Your task to perform on an android device: turn off airplane mode Image 0: 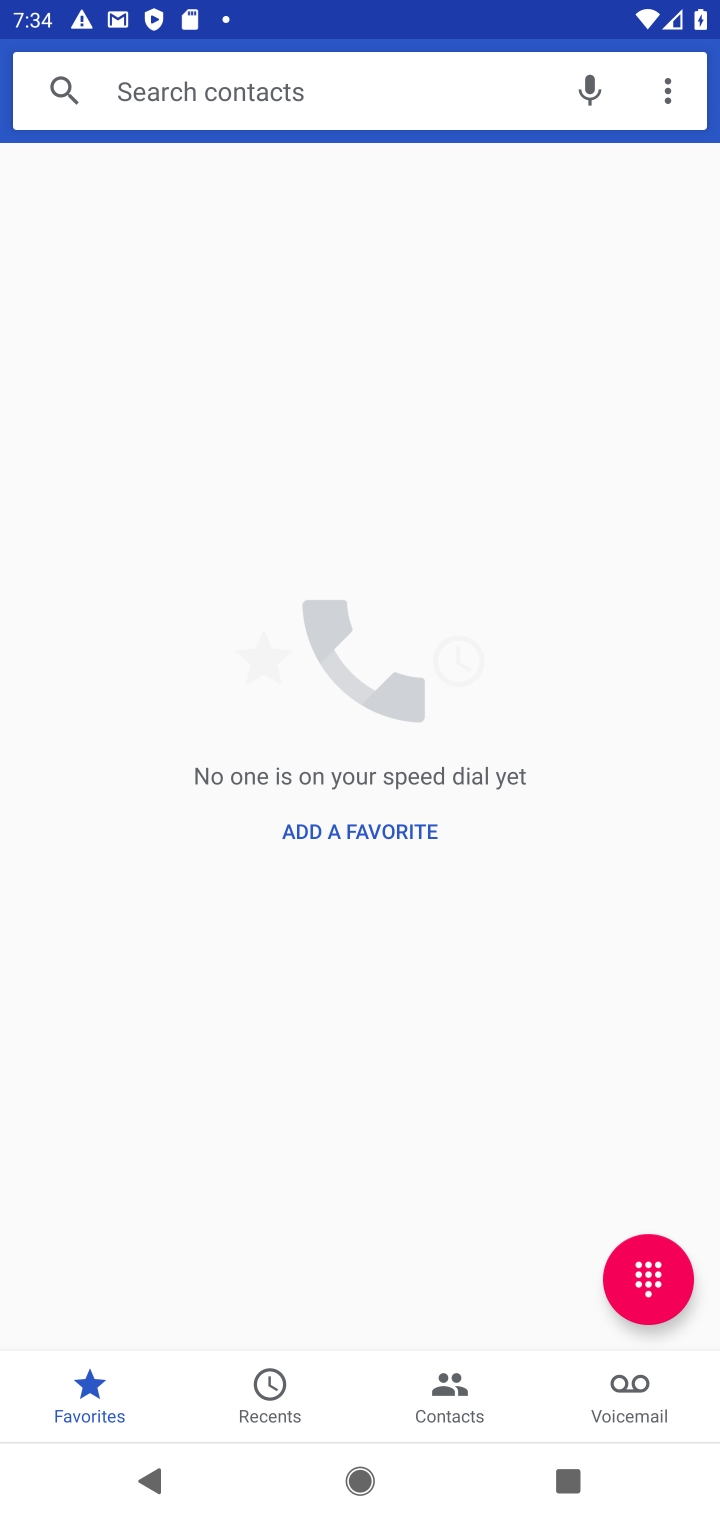
Step 0: press home button
Your task to perform on an android device: turn off airplane mode Image 1: 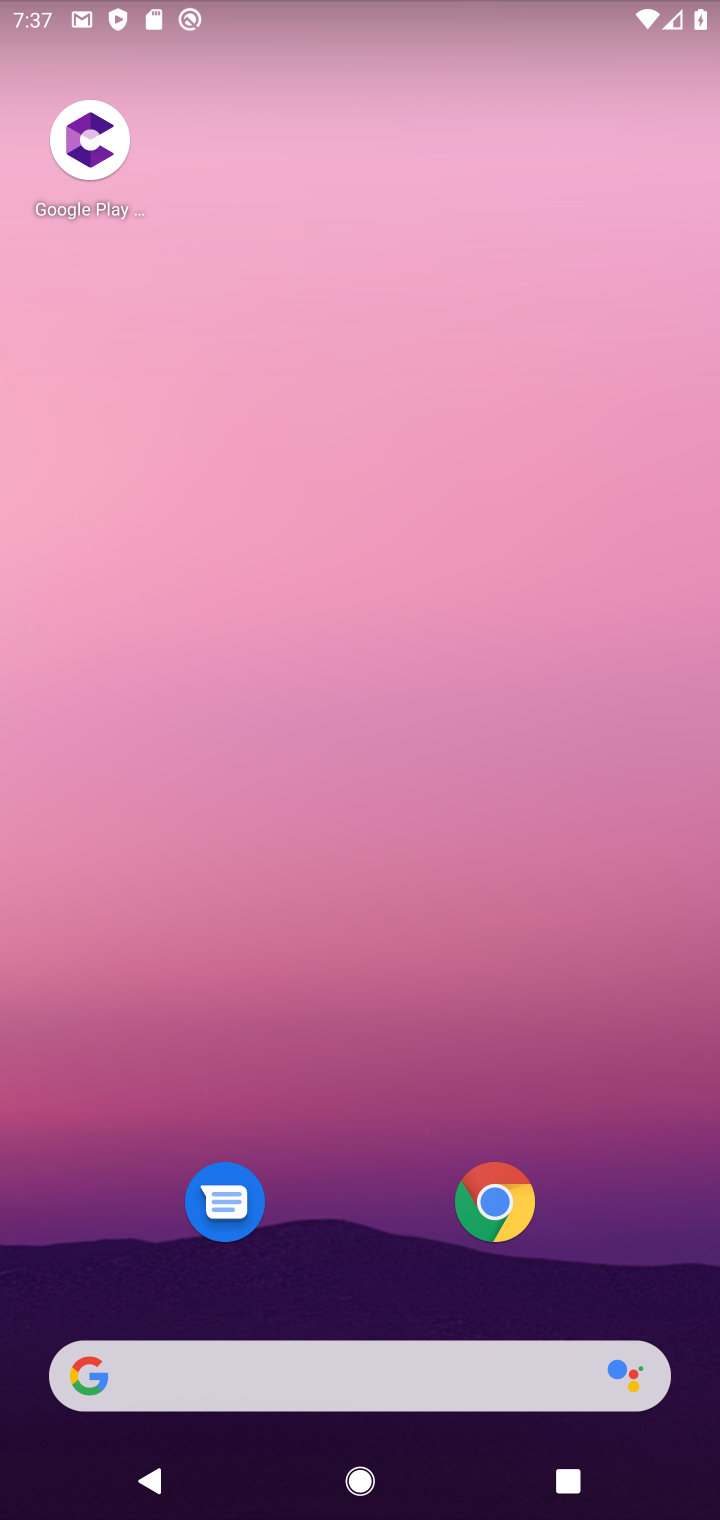
Step 1: drag from (399, 1281) to (263, 203)
Your task to perform on an android device: turn off airplane mode Image 2: 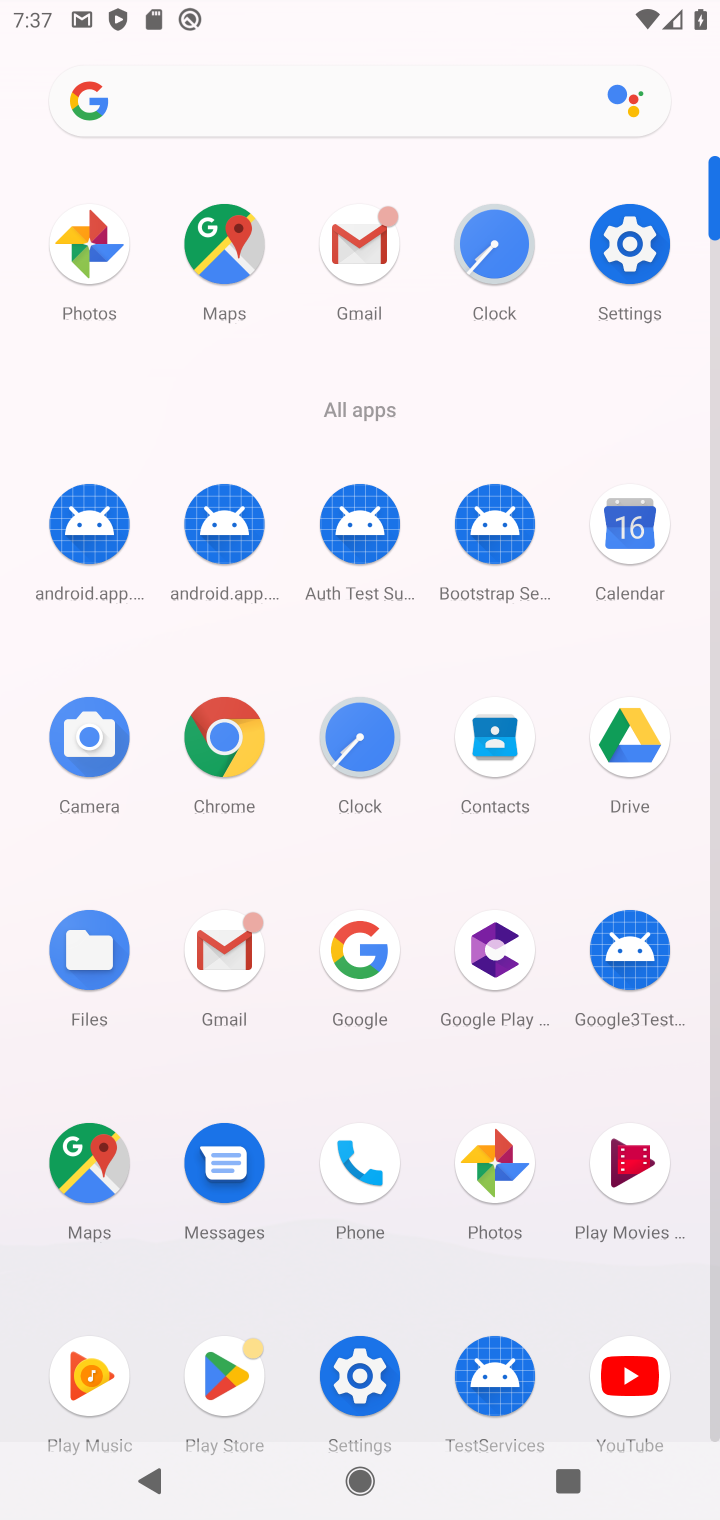
Step 2: click (656, 231)
Your task to perform on an android device: turn off airplane mode Image 3: 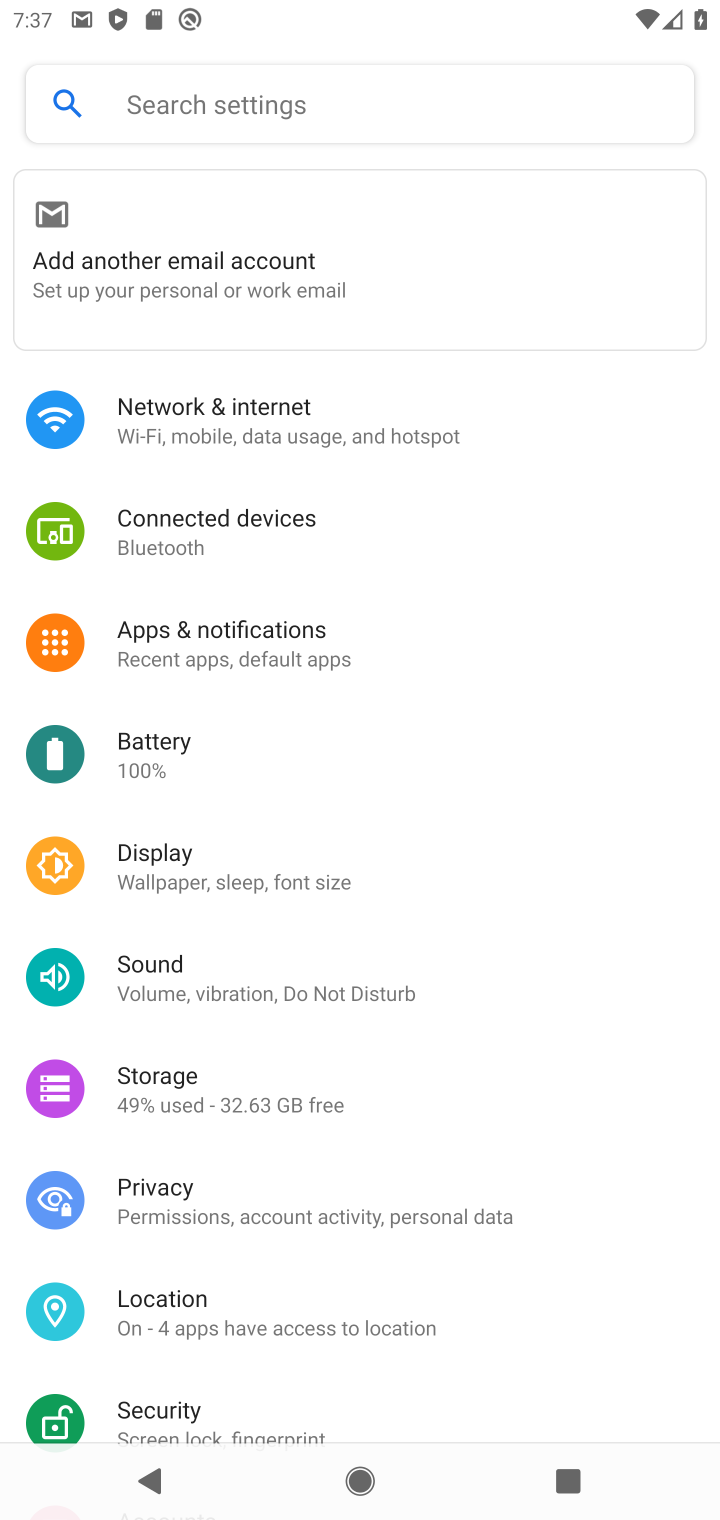
Step 3: click (395, 270)
Your task to perform on an android device: turn off airplane mode Image 4: 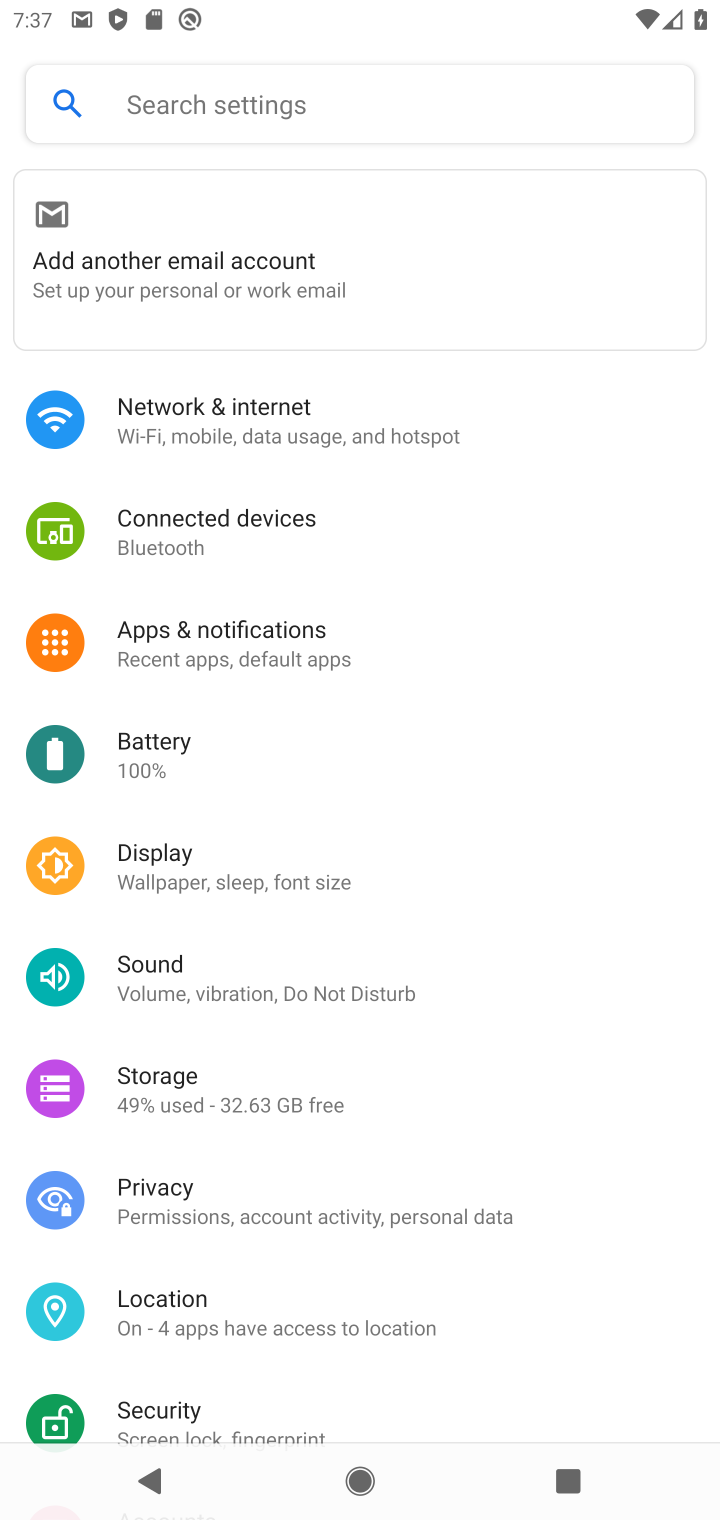
Step 4: task complete